Your task to perform on an android device: Go to Yahoo.com Image 0: 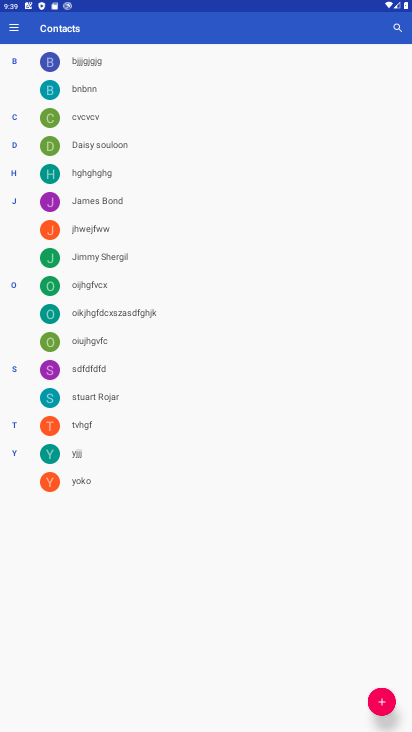
Step 0: press home button
Your task to perform on an android device: Go to Yahoo.com Image 1: 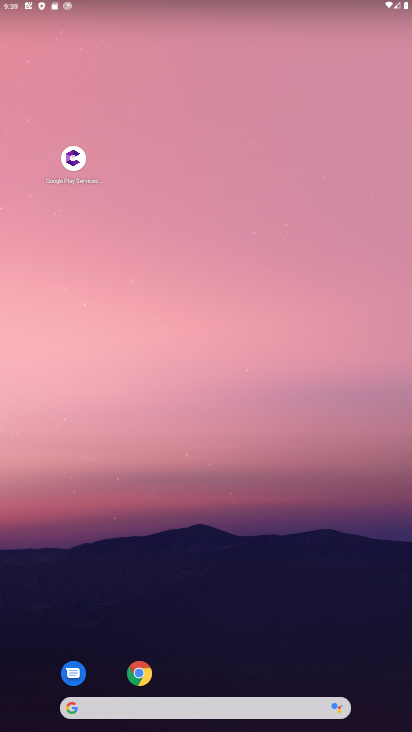
Step 1: drag from (222, 661) to (228, 61)
Your task to perform on an android device: Go to Yahoo.com Image 2: 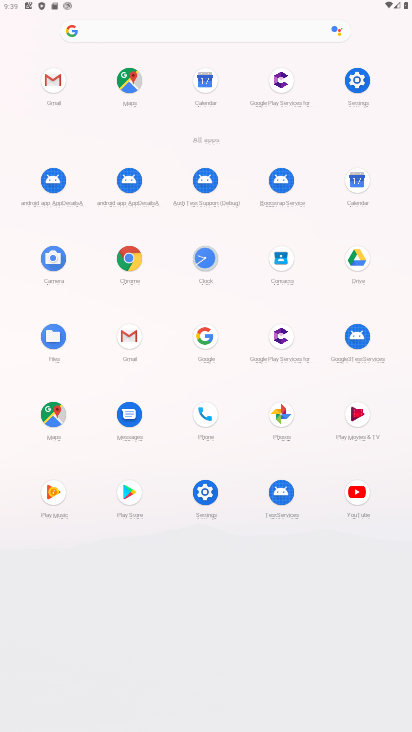
Step 2: click (131, 261)
Your task to perform on an android device: Go to Yahoo.com Image 3: 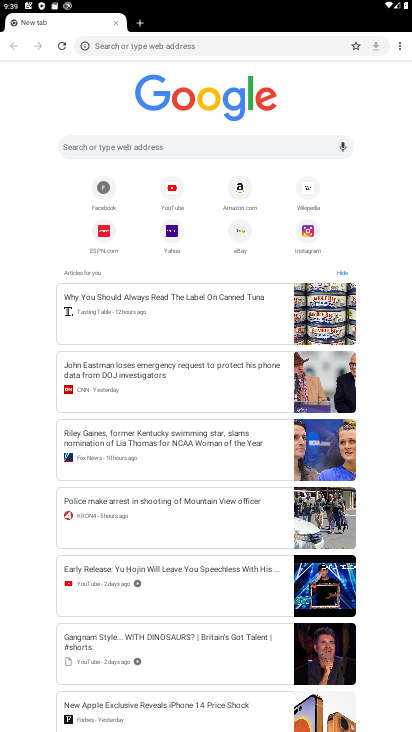
Step 3: click (171, 237)
Your task to perform on an android device: Go to Yahoo.com Image 4: 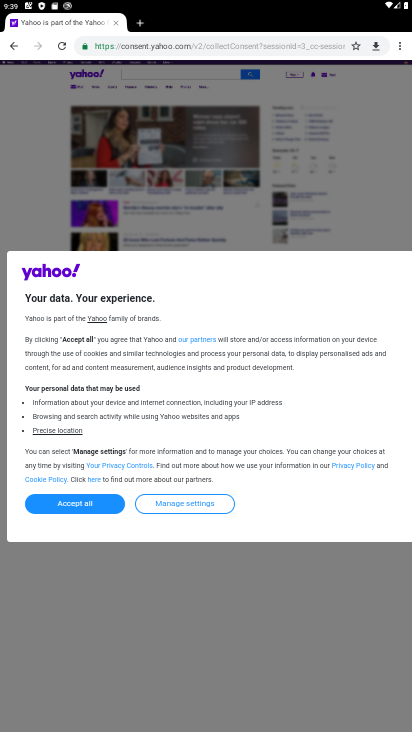
Step 4: task complete